Your task to perform on an android device: turn on wifi Image 0: 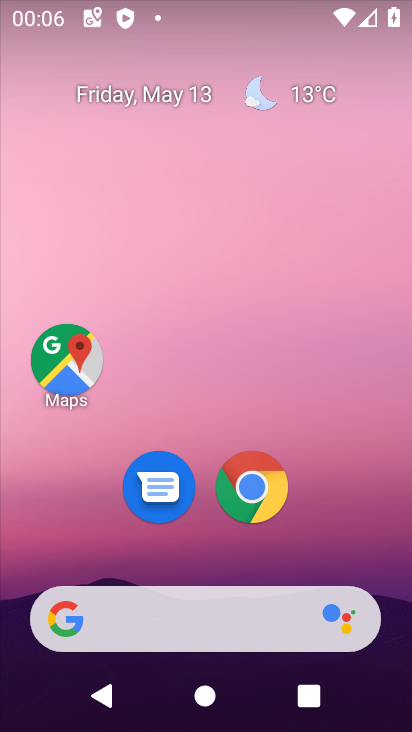
Step 0: drag from (210, 362) to (213, 524)
Your task to perform on an android device: turn on wifi Image 1: 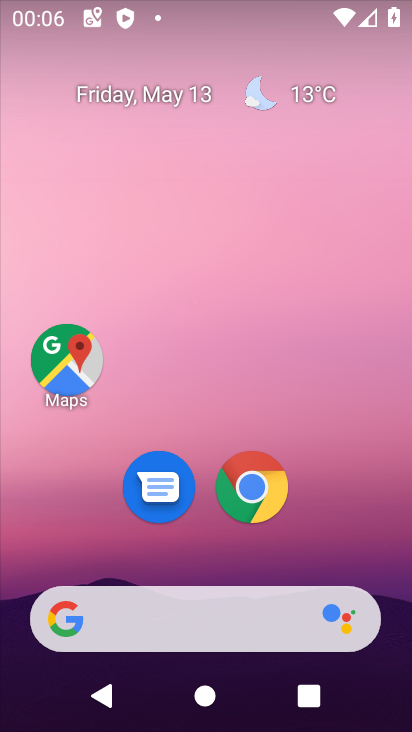
Step 1: task complete